Your task to perform on an android device: change the upload size in google photos Image 0: 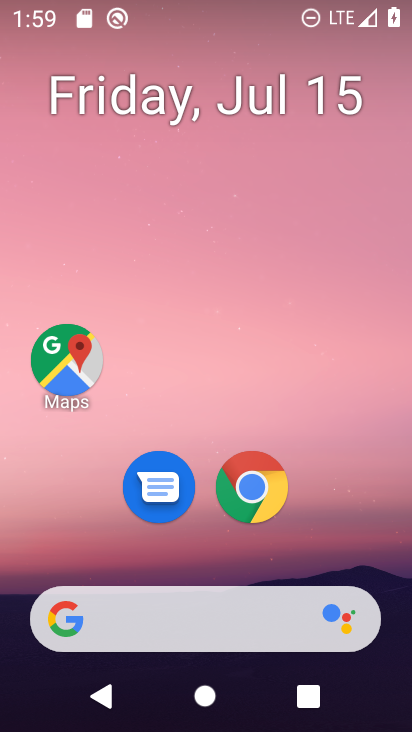
Step 0: drag from (211, 587) to (210, 133)
Your task to perform on an android device: change the upload size in google photos Image 1: 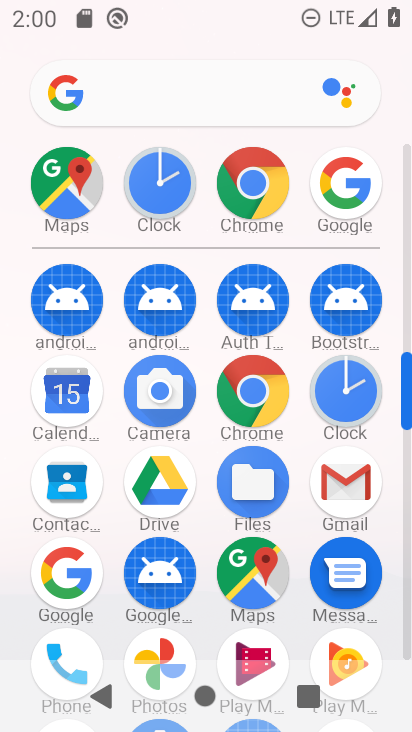
Step 1: drag from (156, 445) to (209, 166)
Your task to perform on an android device: change the upload size in google photos Image 2: 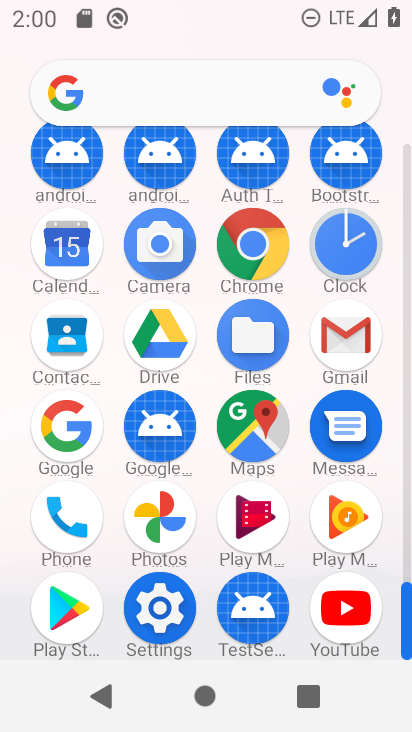
Step 2: click (154, 545)
Your task to perform on an android device: change the upload size in google photos Image 3: 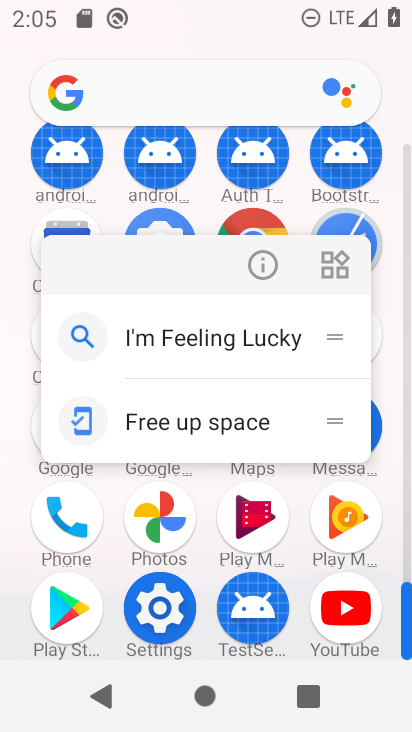
Step 3: click (165, 524)
Your task to perform on an android device: change the upload size in google photos Image 4: 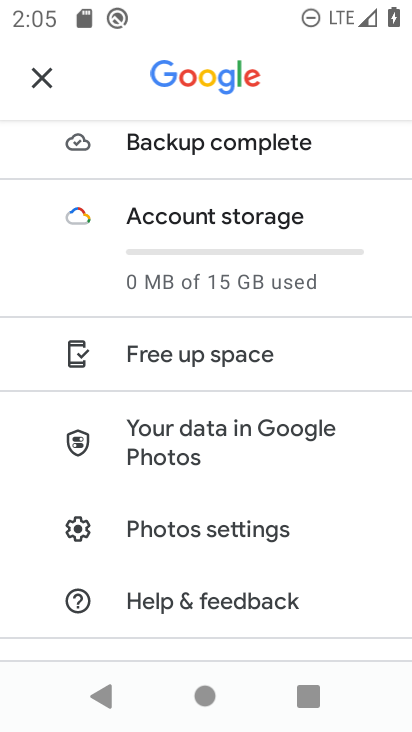
Step 4: drag from (212, 512) to (305, 109)
Your task to perform on an android device: change the upload size in google photos Image 5: 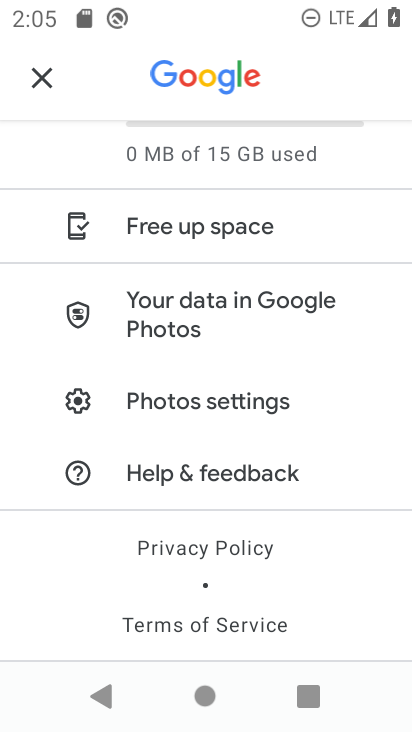
Step 5: click (215, 402)
Your task to perform on an android device: change the upload size in google photos Image 6: 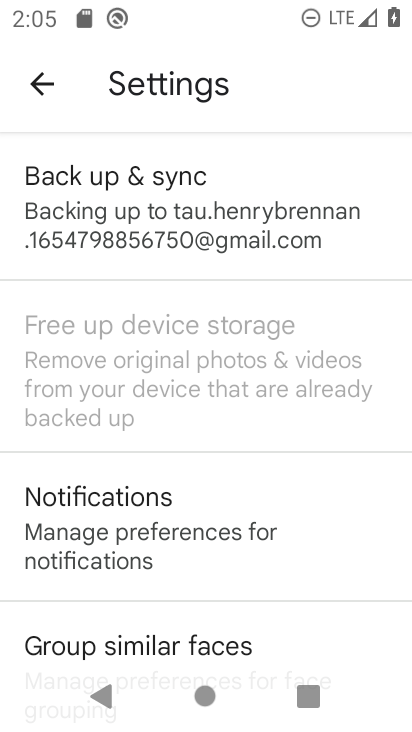
Step 6: click (263, 218)
Your task to perform on an android device: change the upload size in google photos Image 7: 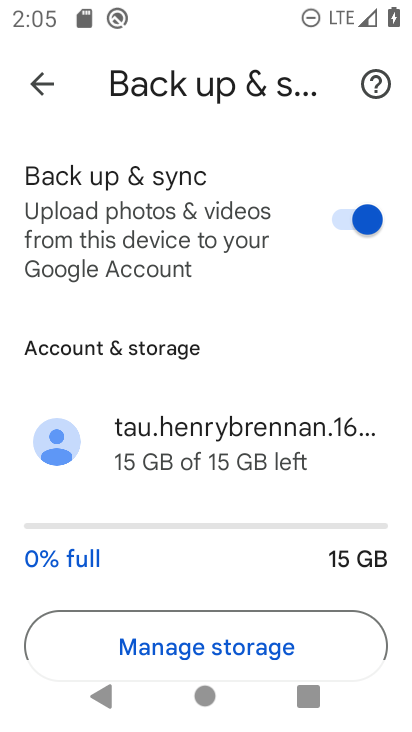
Step 7: drag from (212, 540) to (280, 221)
Your task to perform on an android device: change the upload size in google photos Image 8: 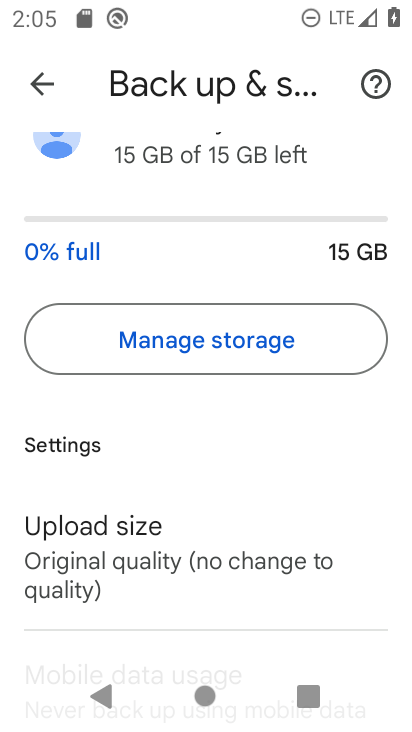
Step 8: drag from (170, 489) to (174, 346)
Your task to perform on an android device: change the upload size in google photos Image 9: 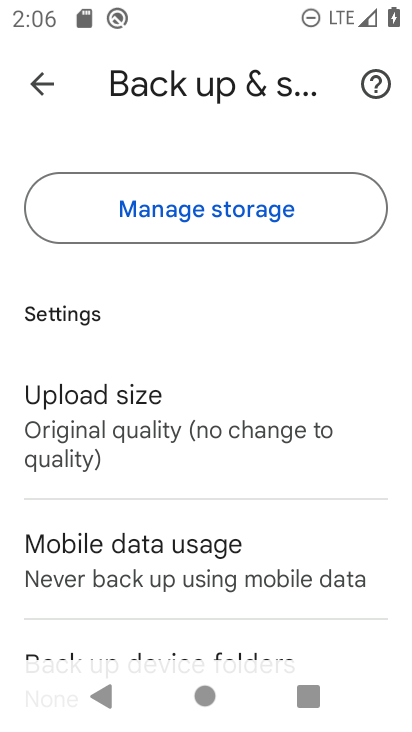
Step 9: click (190, 430)
Your task to perform on an android device: change the upload size in google photos Image 10: 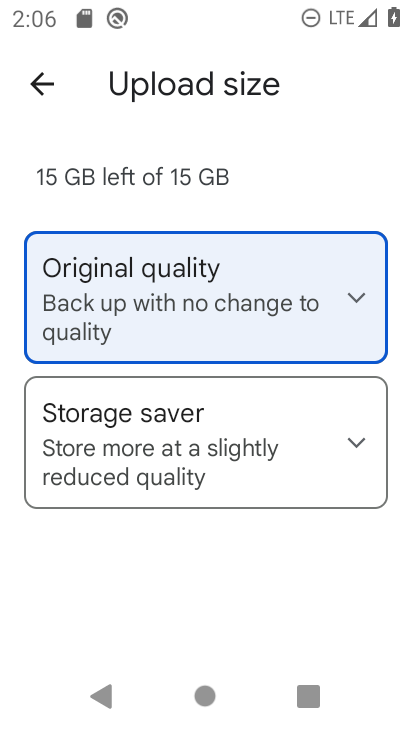
Step 10: click (191, 430)
Your task to perform on an android device: change the upload size in google photos Image 11: 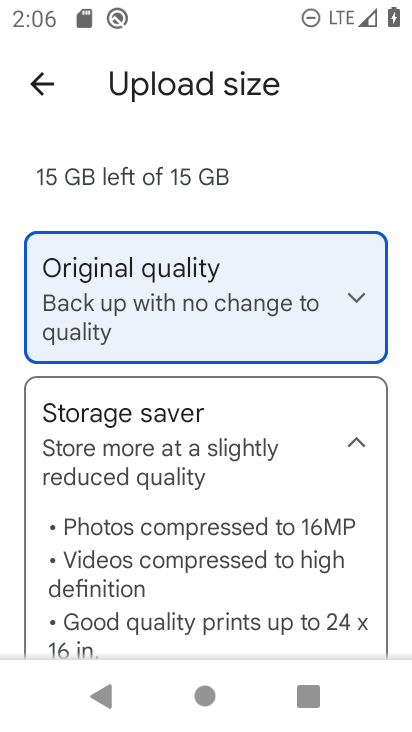
Step 11: task complete